Your task to perform on an android device: Open Yahoo.com Image 0: 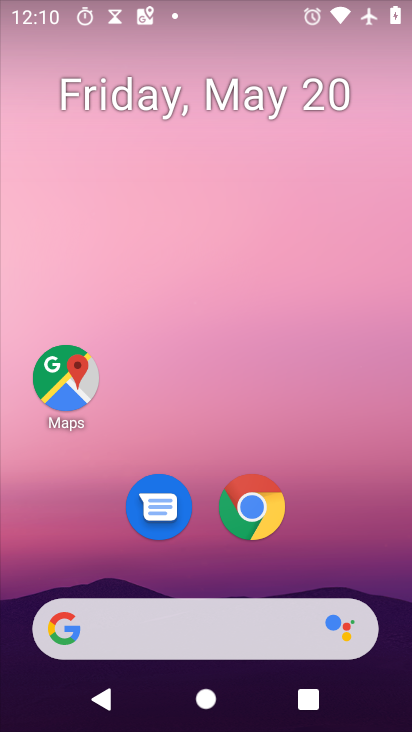
Step 0: drag from (330, 512) to (264, 72)
Your task to perform on an android device: Open Yahoo.com Image 1: 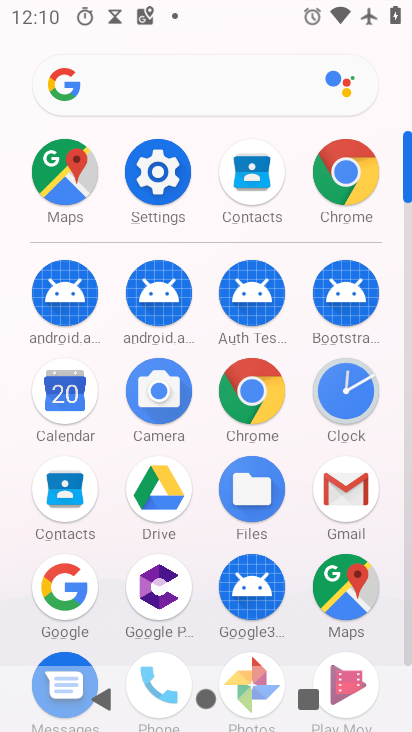
Step 1: drag from (26, 537) to (31, 196)
Your task to perform on an android device: Open Yahoo.com Image 2: 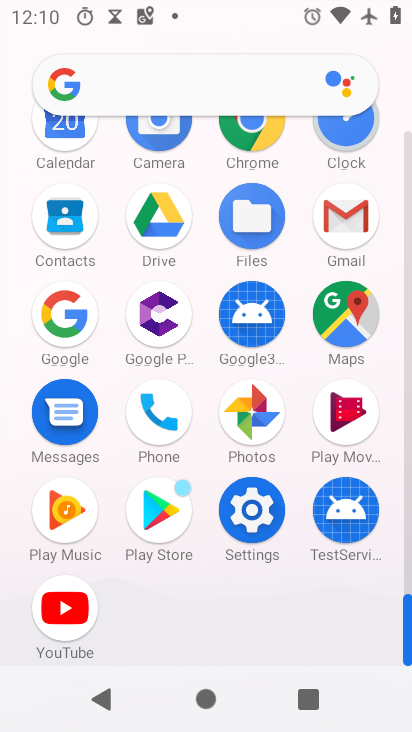
Step 2: drag from (13, 158) to (17, 398)
Your task to perform on an android device: Open Yahoo.com Image 3: 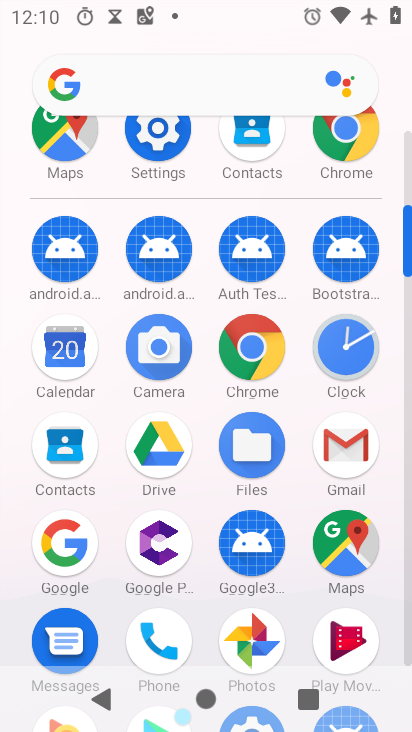
Step 3: click (254, 344)
Your task to perform on an android device: Open Yahoo.com Image 4: 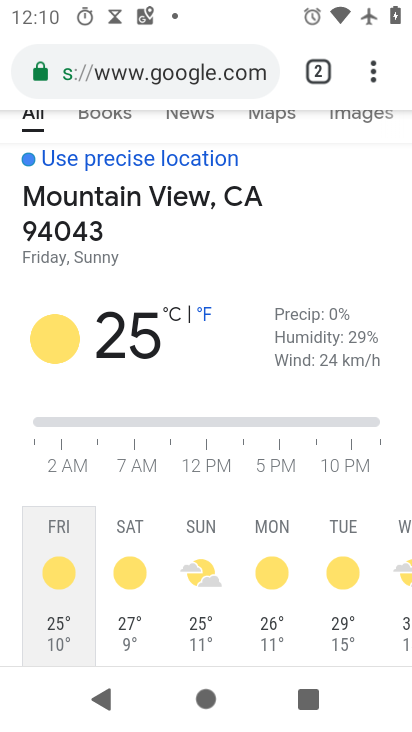
Step 4: click (174, 65)
Your task to perform on an android device: Open Yahoo.com Image 5: 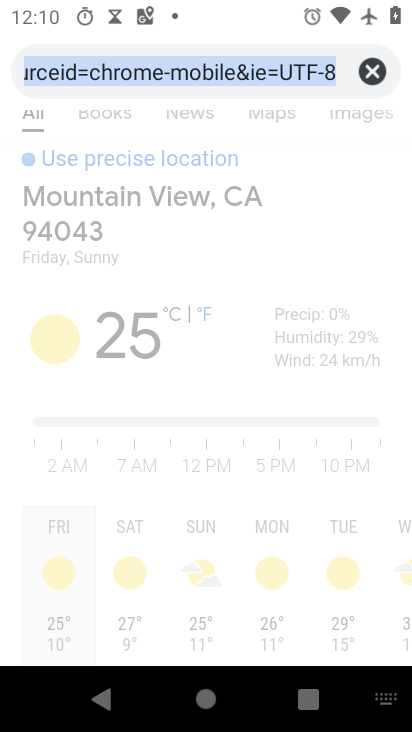
Step 5: click (371, 74)
Your task to perform on an android device: Open Yahoo.com Image 6: 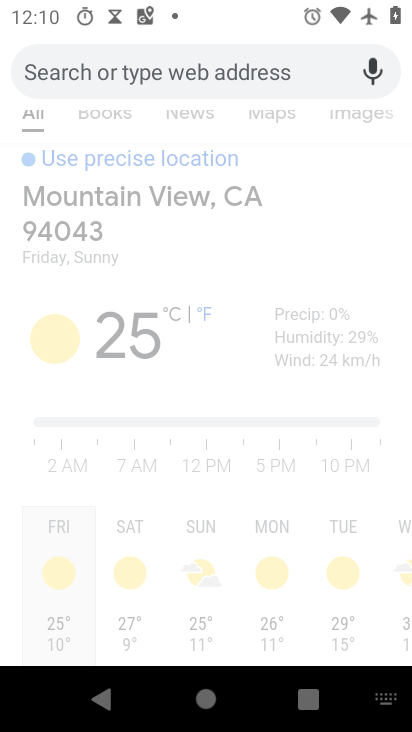
Step 6: type "Yahoo.com"
Your task to perform on an android device: Open Yahoo.com Image 7: 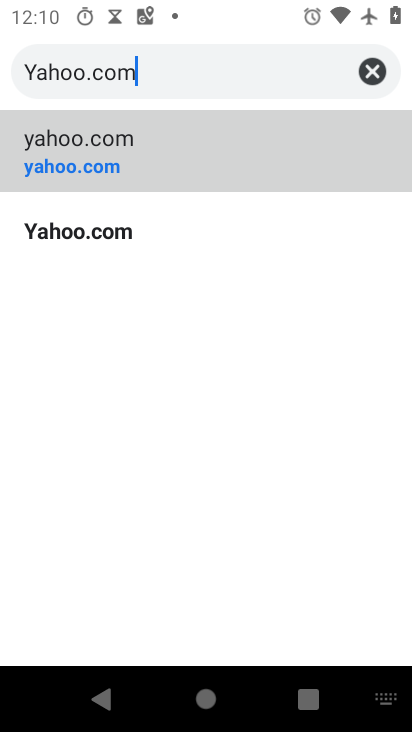
Step 7: type ""
Your task to perform on an android device: Open Yahoo.com Image 8: 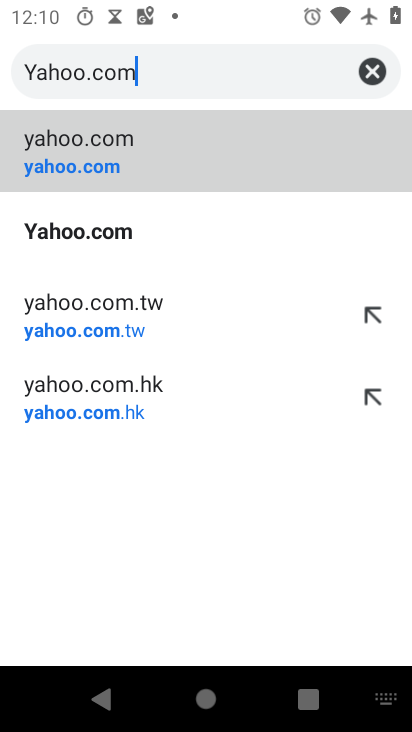
Step 8: click (155, 151)
Your task to perform on an android device: Open Yahoo.com Image 9: 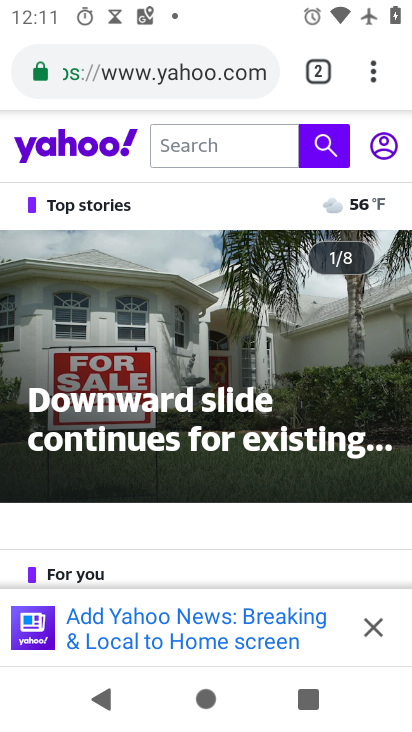
Step 9: task complete